Your task to perform on an android device: Open Google Chrome Image 0: 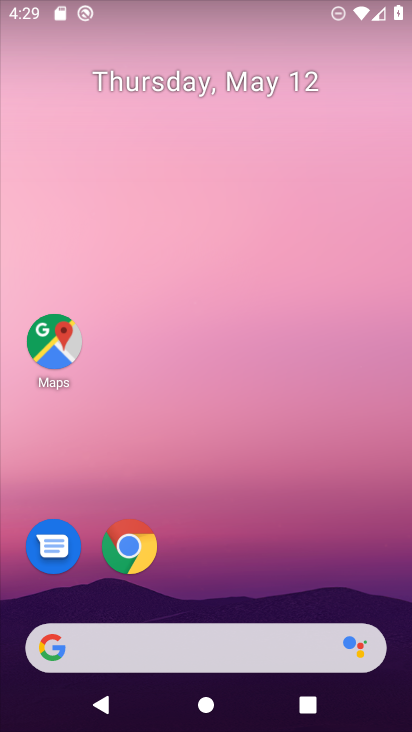
Step 0: click (303, 222)
Your task to perform on an android device: Open Google Chrome Image 1: 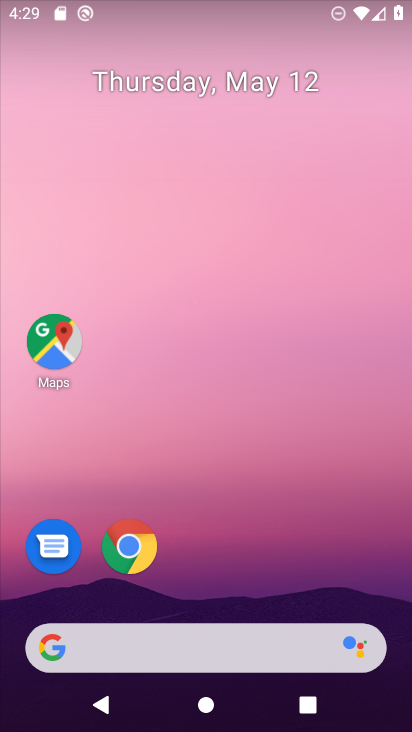
Step 1: drag from (247, 594) to (274, 253)
Your task to perform on an android device: Open Google Chrome Image 2: 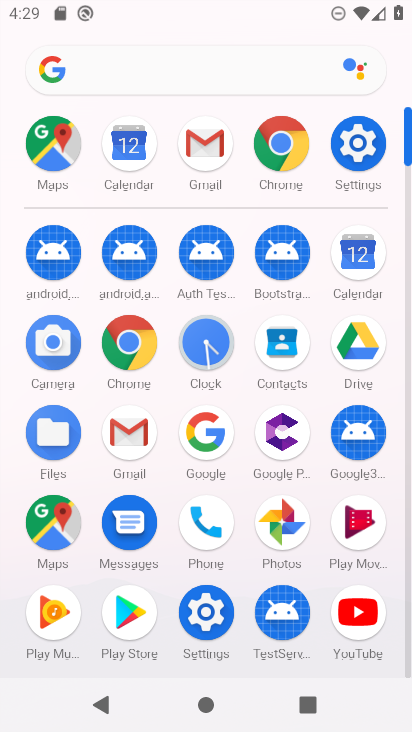
Step 2: click (206, 429)
Your task to perform on an android device: Open Google Chrome Image 3: 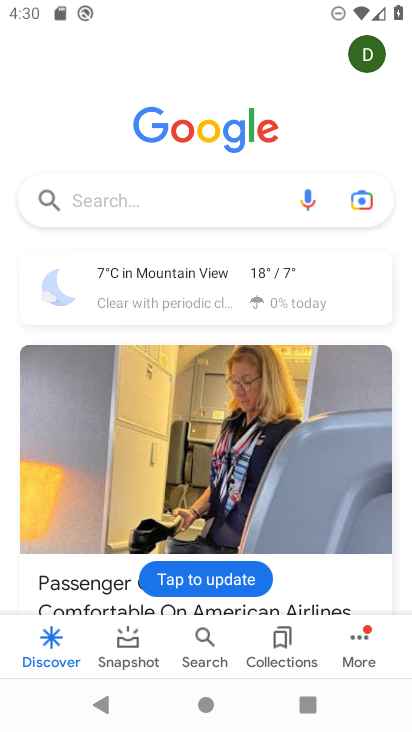
Step 3: task complete